Your task to perform on an android device: Open Google Maps Image 0: 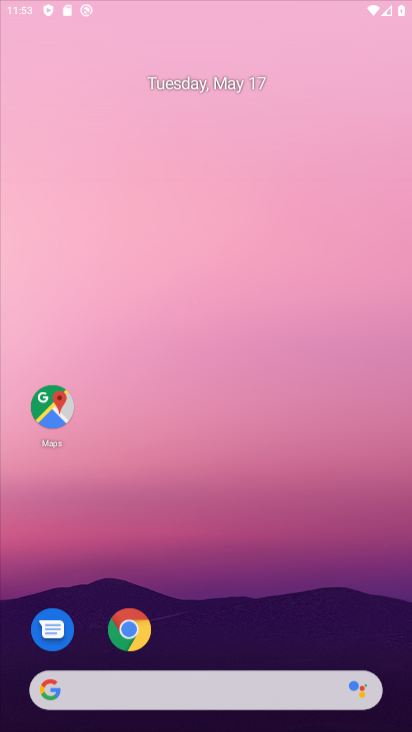
Step 0: click (352, 316)
Your task to perform on an android device: Open Google Maps Image 1: 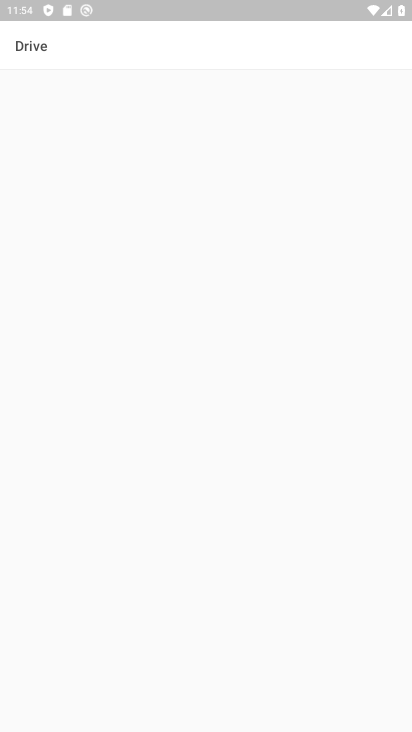
Step 1: press home button
Your task to perform on an android device: Open Google Maps Image 2: 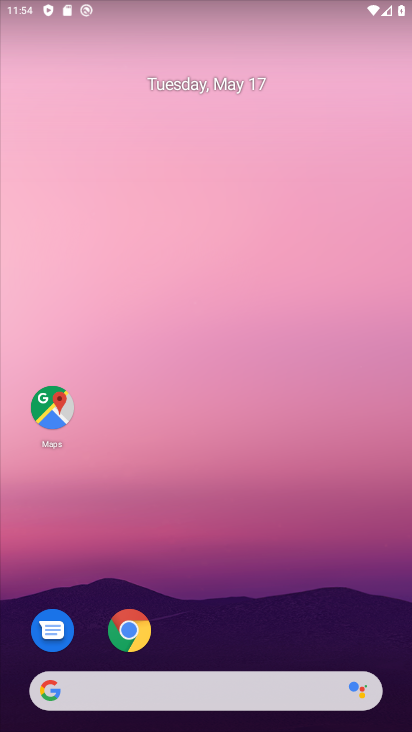
Step 2: click (43, 415)
Your task to perform on an android device: Open Google Maps Image 3: 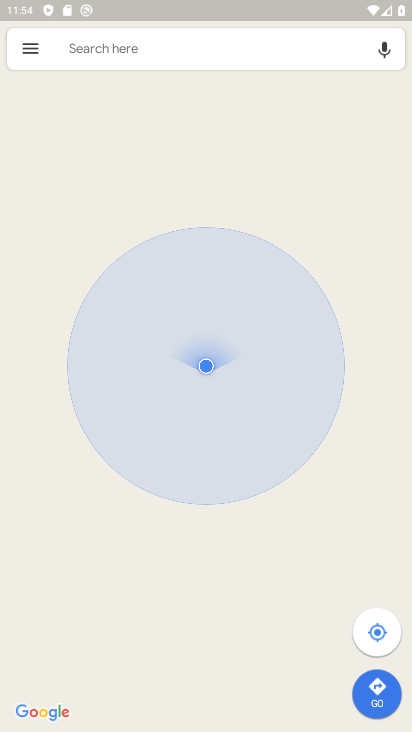
Step 3: task complete